Your task to perform on an android device: set the stopwatch Image 0: 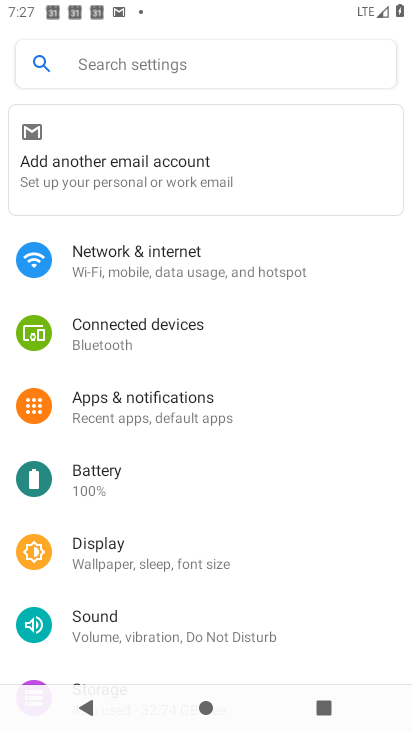
Step 0: press home button
Your task to perform on an android device: set the stopwatch Image 1: 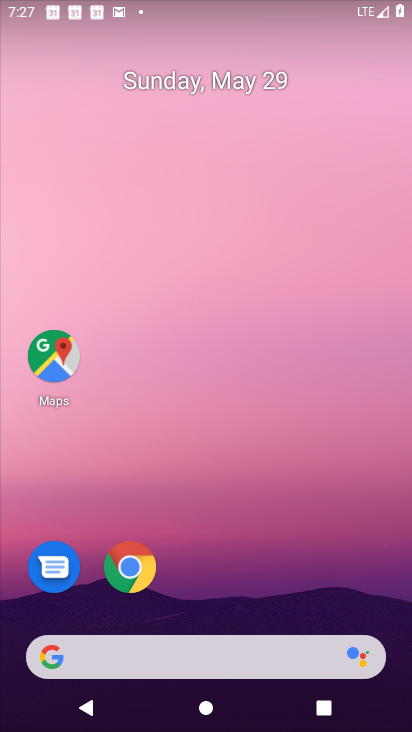
Step 1: drag from (230, 608) to (216, 147)
Your task to perform on an android device: set the stopwatch Image 2: 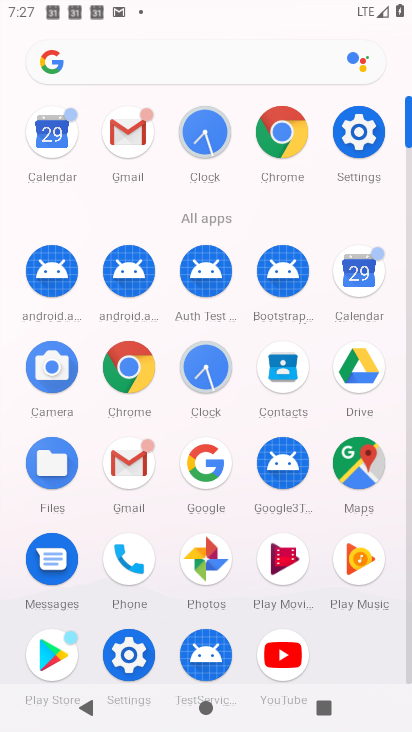
Step 2: click (209, 365)
Your task to perform on an android device: set the stopwatch Image 3: 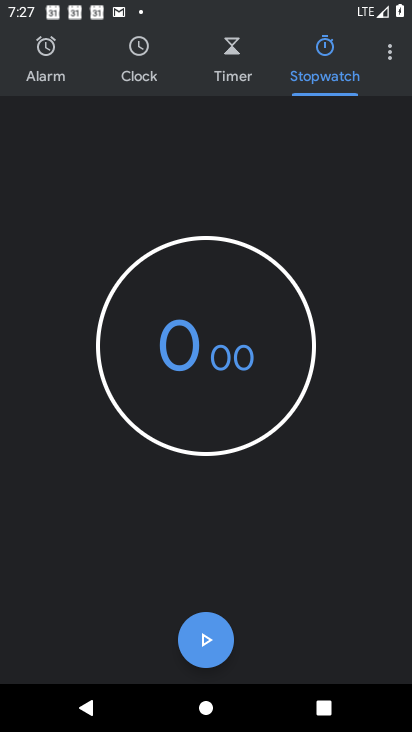
Step 3: task complete